Your task to perform on an android device: open a new tab in the chrome app Image 0: 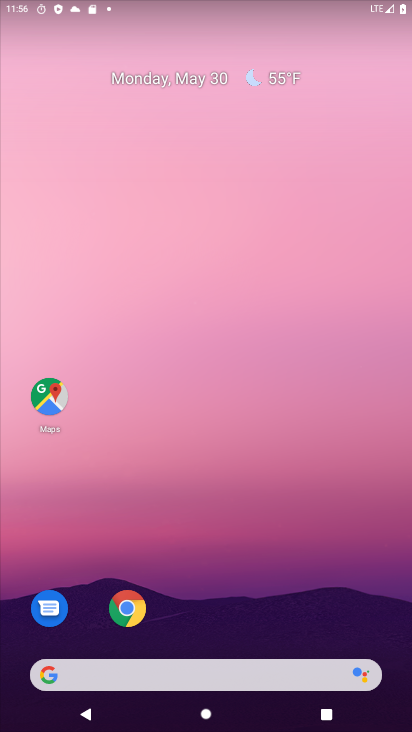
Step 0: click (132, 615)
Your task to perform on an android device: open a new tab in the chrome app Image 1: 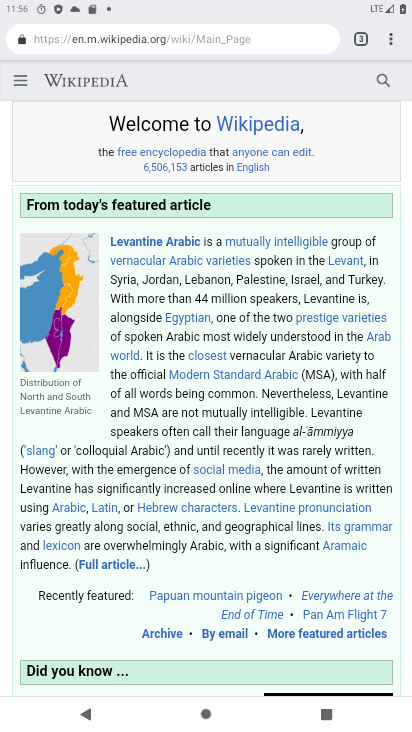
Step 1: click (391, 41)
Your task to perform on an android device: open a new tab in the chrome app Image 2: 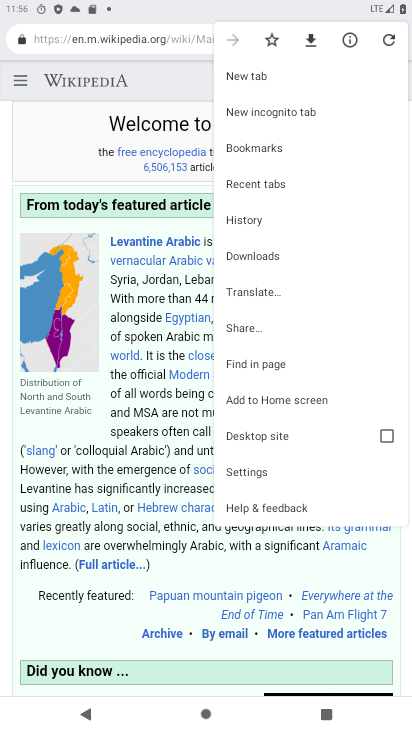
Step 2: click (255, 75)
Your task to perform on an android device: open a new tab in the chrome app Image 3: 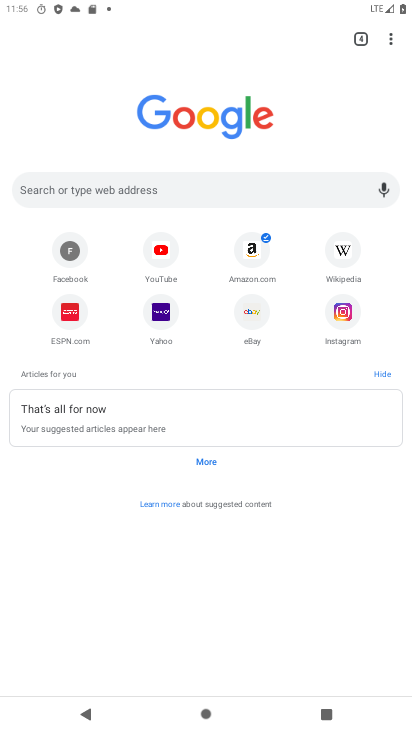
Step 3: task complete